Your task to perform on an android device: Open settings on Google Maps Image 0: 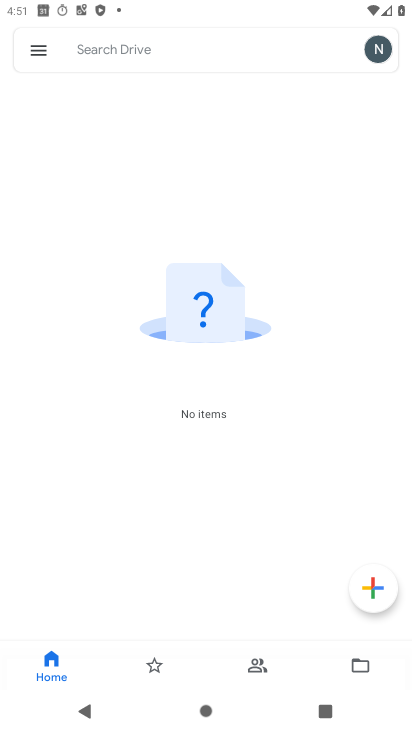
Step 0: press home button
Your task to perform on an android device: Open settings on Google Maps Image 1: 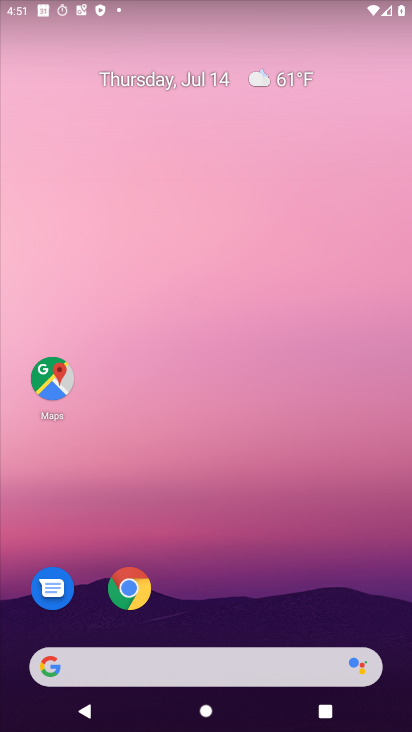
Step 1: click (53, 381)
Your task to perform on an android device: Open settings on Google Maps Image 2: 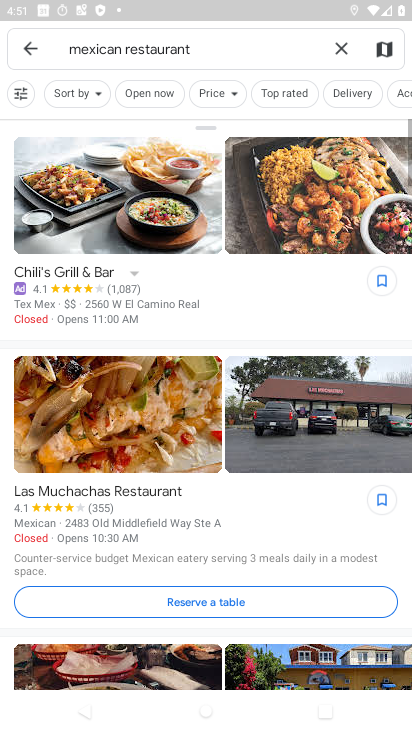
Step 2: press back button
Your task to perform on an android device: Open settings on Google Maps Image 3: 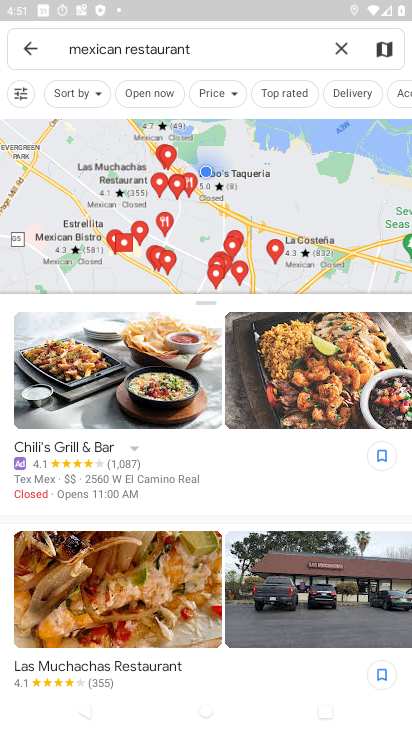
Step 3: click (340, 52)
Your task to perform on an android device: Open settings on Google Maps Image 4: 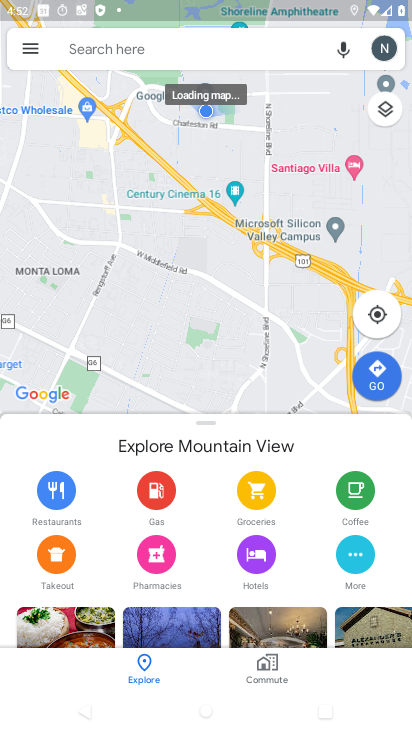
Step 4: click (32, 53)
Your task to perform on an android device: Open settings on Google Maps Image 5: 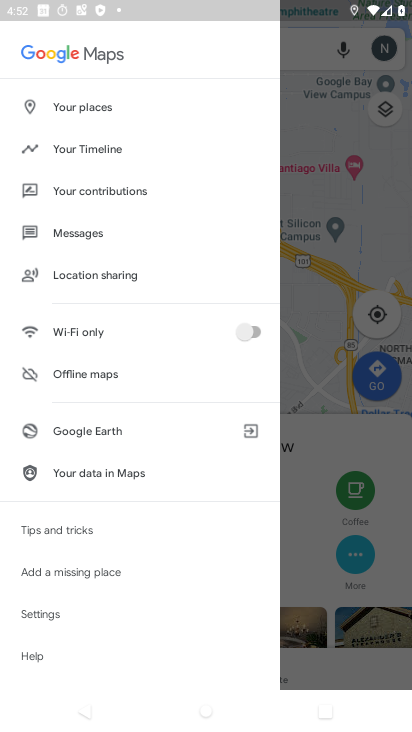
Step 5: drag from (110, 510) to (129, 375)
Your task to perform on an android device: Open settings on Google Maps Image 6: 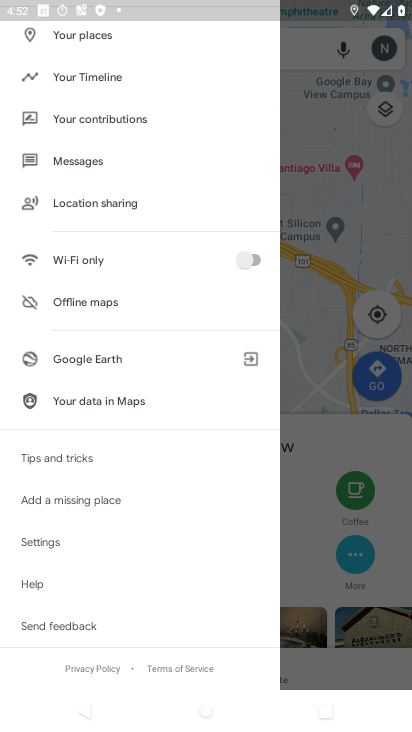
Step 6: click (51, 542)
Your task to perform on an android device: Open settings on Google Maps Image 7: 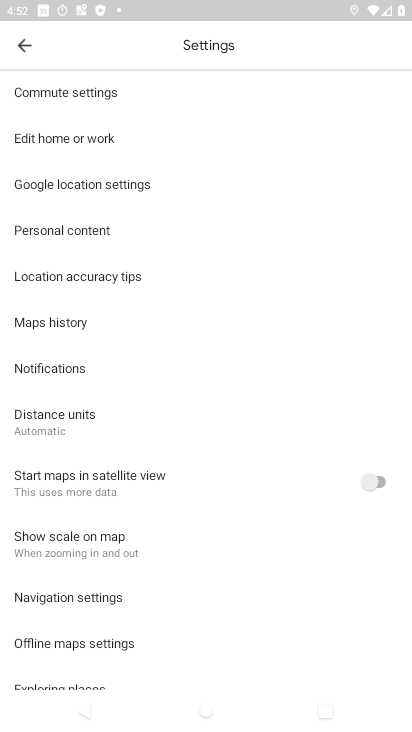
Step 7: task complete